Your task to perform on an android device: snooze an email in the gmail app Image 0: 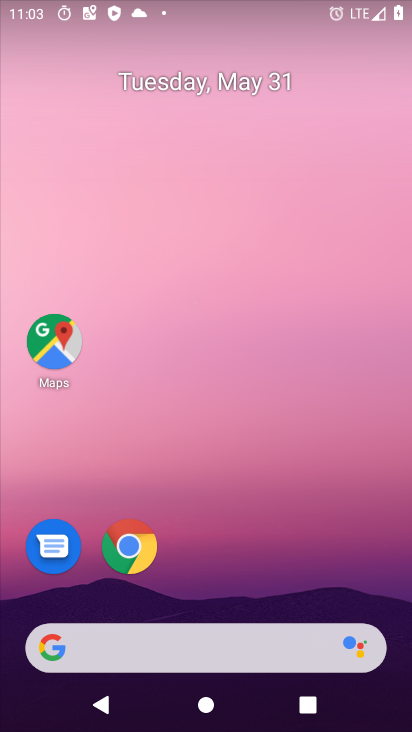
Step 0: drag from (225, 549) to (262, 164)
Your task to perform on an android device: snooze an email in the gmail app Image 1: 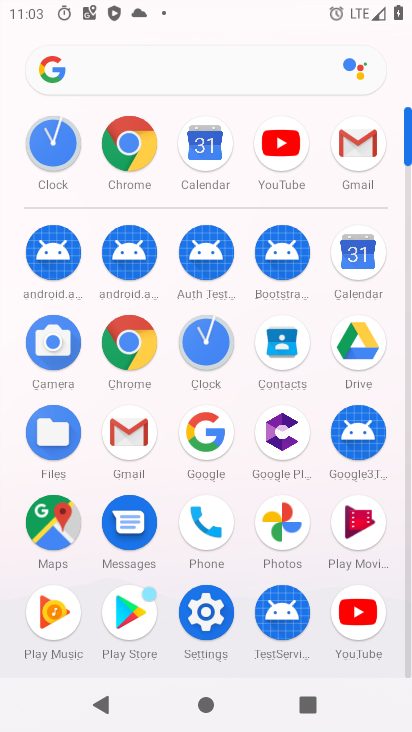
Step 1: click (372, 156)
Your task to perform on an android device: snooze an email in the gmail app Image 2: 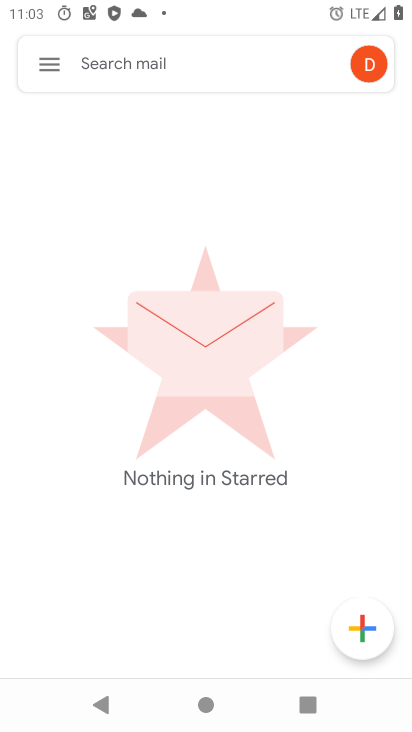
Step 2: click (45, 72)
Your task to perform on an android device: snooze an email in the gmail app Image 3: 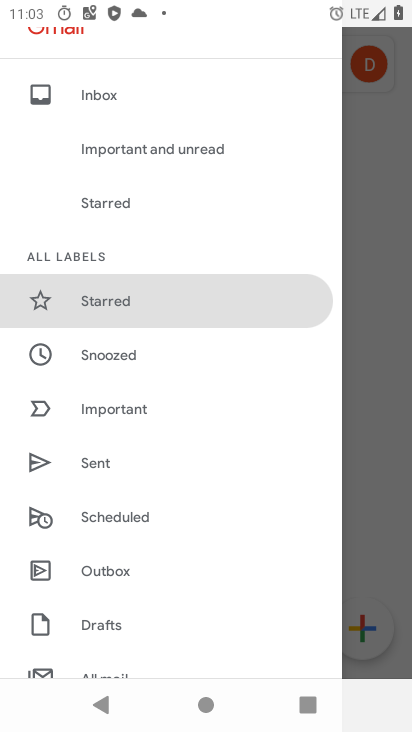
Step 3: click (151, 351)
Your task to perform on an android device: snooze an email in the gmail app Image 4: 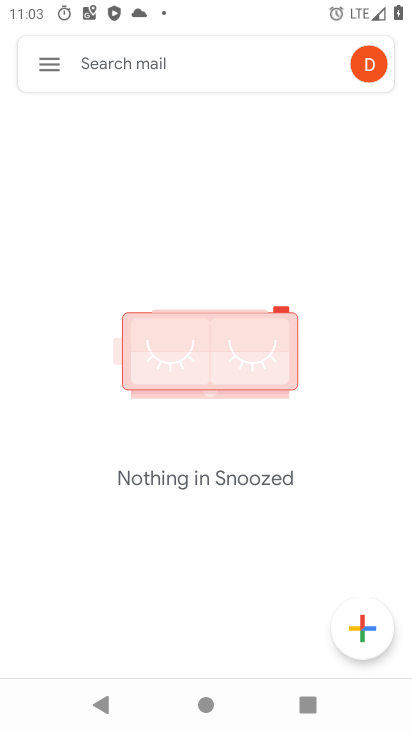
Step 4: task complete